Your task to perform on an android device: Open Yahoo.com Image 0: 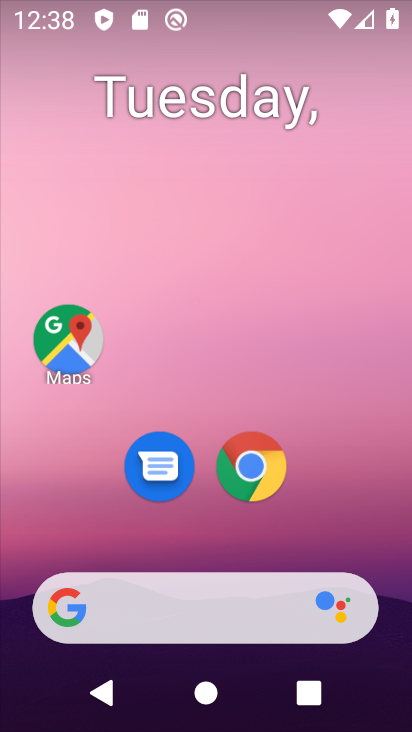
Step 0: drag from (377, 536) to (379, 253)
Your task to perform on an android device: Open Yahoo.com Image 1: 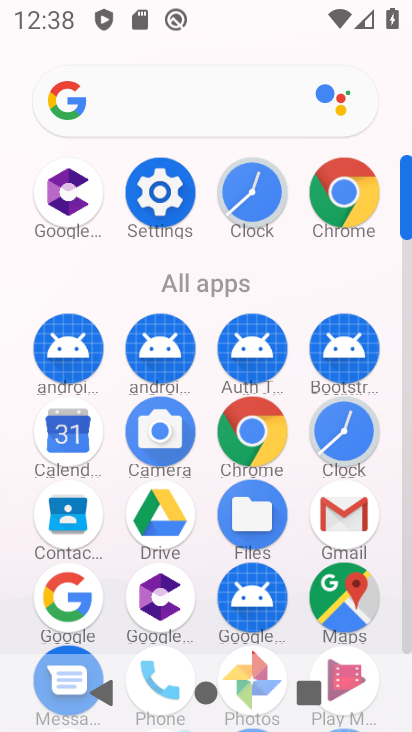
Step 1: click (267, 435)
Your task to perform on an android device: Open Yahoo.com Image 2: 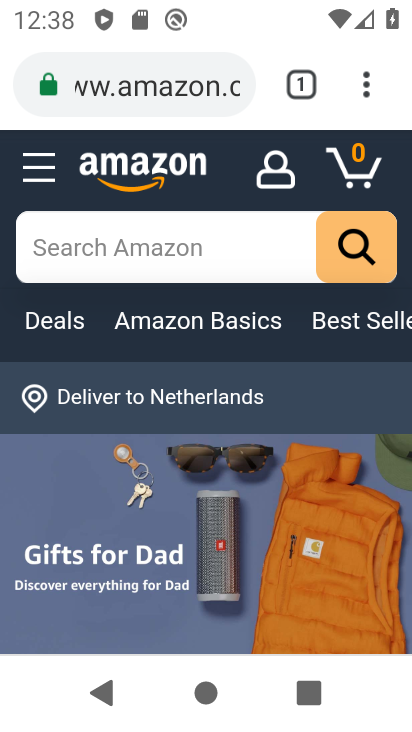
Step 2: click (210, 90)
Your task to perform on an android device: Open Yahoo.com Image 3: 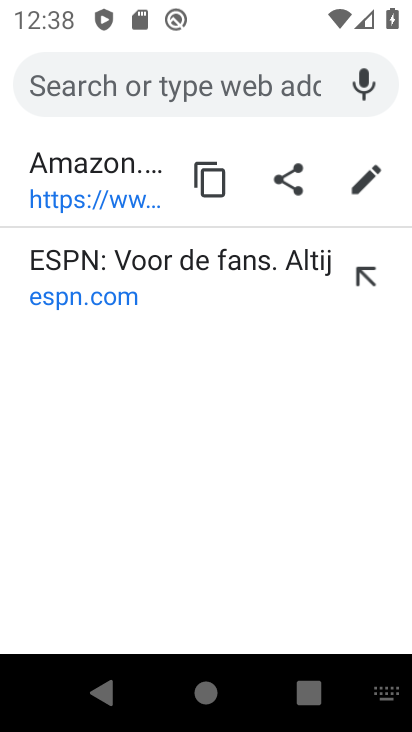
Step 3: type "yahoo.com"
Your task to perform on an android device: Open Yahoo.com Image 4: 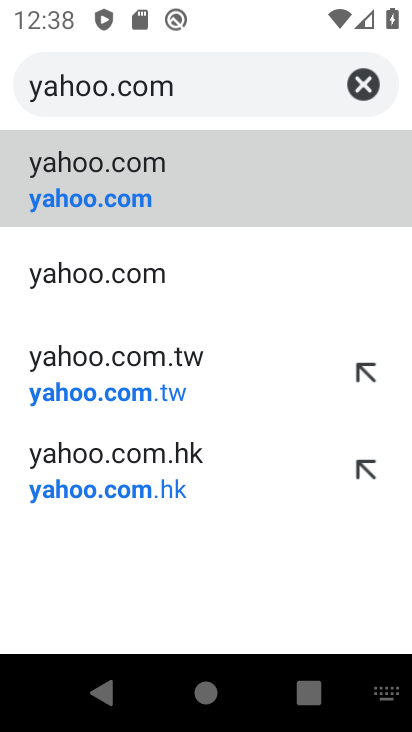
Step 4: click (202, 195)
Your task to perform on an android device: Open Yahoo.com Image 5: 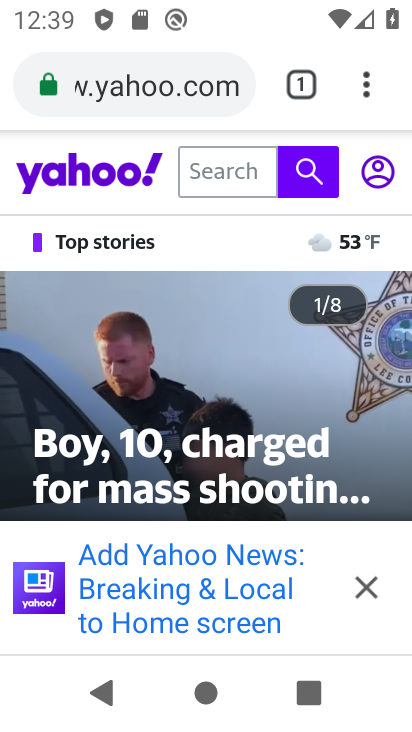
Step 5: task complete